Your task to perform on an android device: Open Chrome and go to settings Image 0: 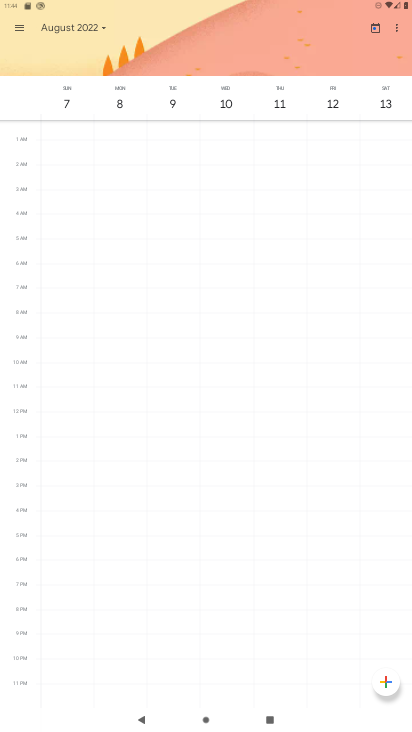
Step 0: press home button
Your task to perform on an android device: Open Chrome and go to settings Image 1: 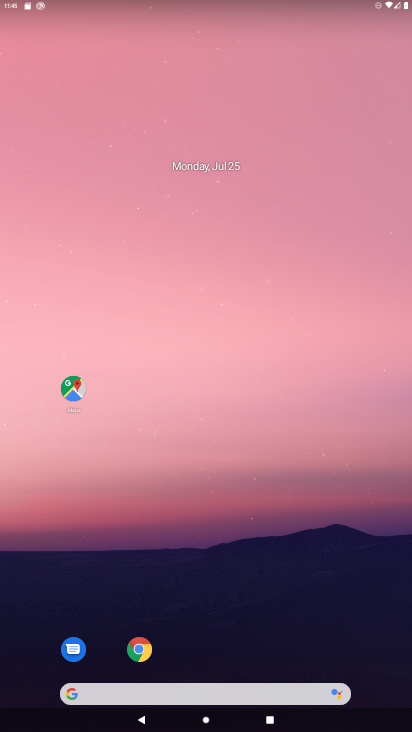
Step 1: click (140, 650)
Your task to perform on an android device: Open Chrome and go to settings Image 2: 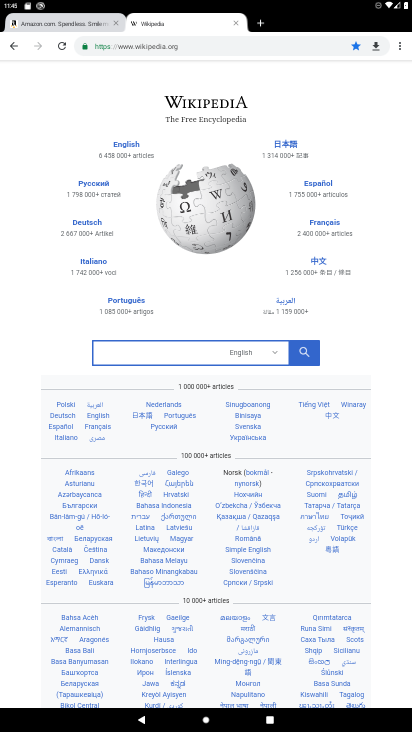
Step 2: click (401, 50)
Your task to perform on an android device: Open Chrome and go to settings Image 3: 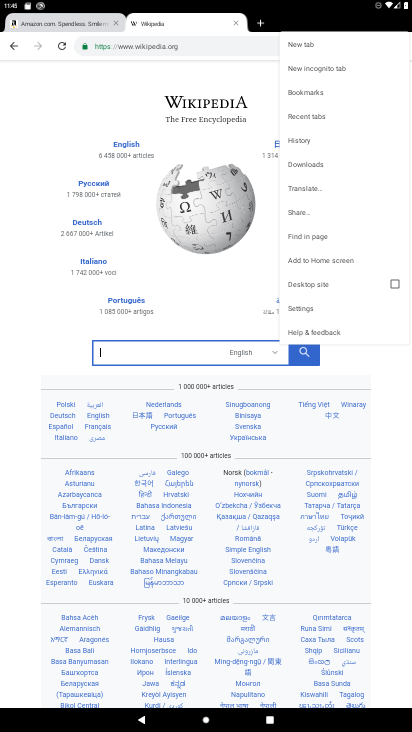
Step 3: click (300, 310)
Your task to perform on an android device: Open Chrome and go to settings Image 4: 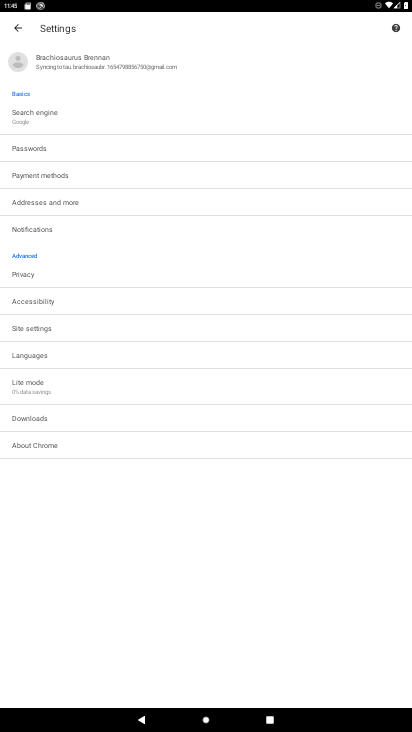
Step 4: task complete